Your task to perform on an android device: turn on sleep mode Image 0: 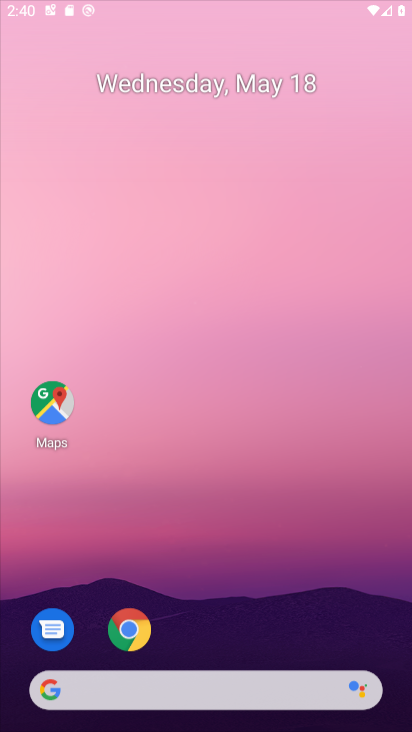
Step 0: press home button
Your task to perform on an android device: turn on sleep mode Image 1: 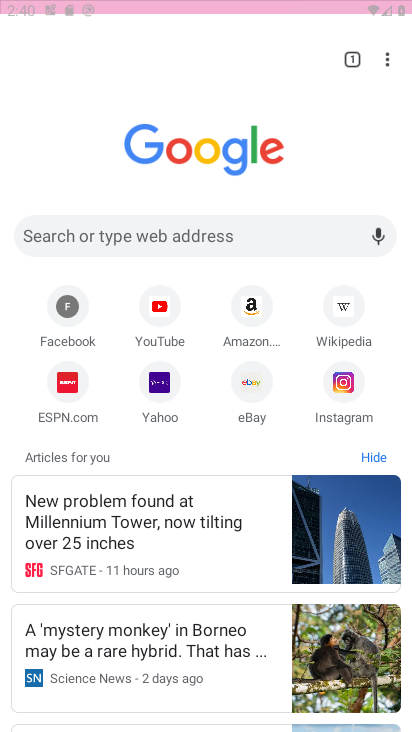
Step 1: drag from (224, 643) to (351, 62)
Your task to perform on an android device: turn on sleep mode Image 2: 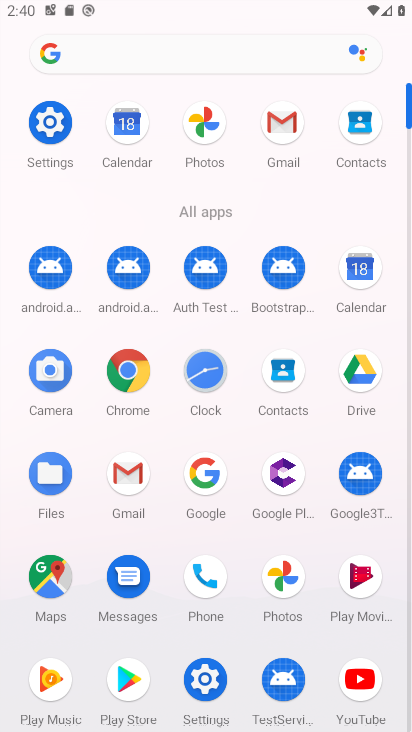
Step 2: click (49, 119)
Your task to perform on an android device: turn on sleep mode Image 3: 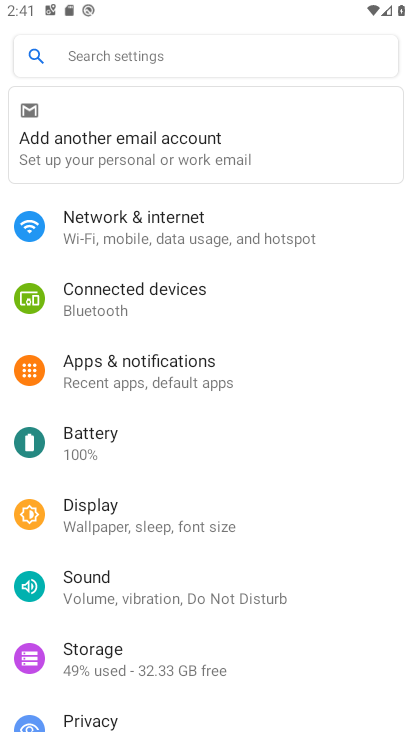
Step 3: click (148, 505)
Your task to perform on an android device: turn on sleep mode Image 4: 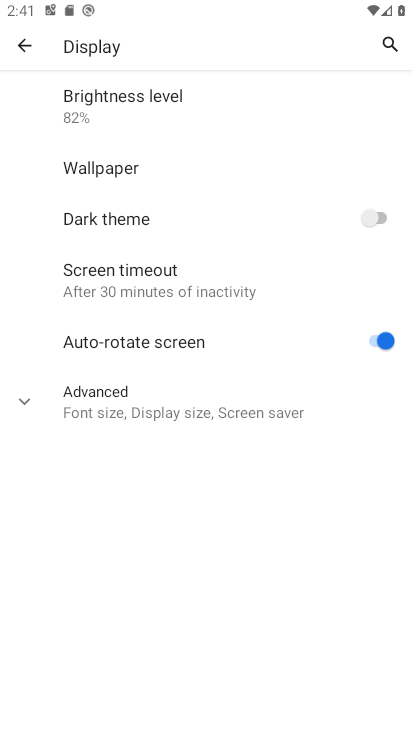
Step 4: click (41, 399)
Your task to perform on an android device: turn on sleep mode Image 5: 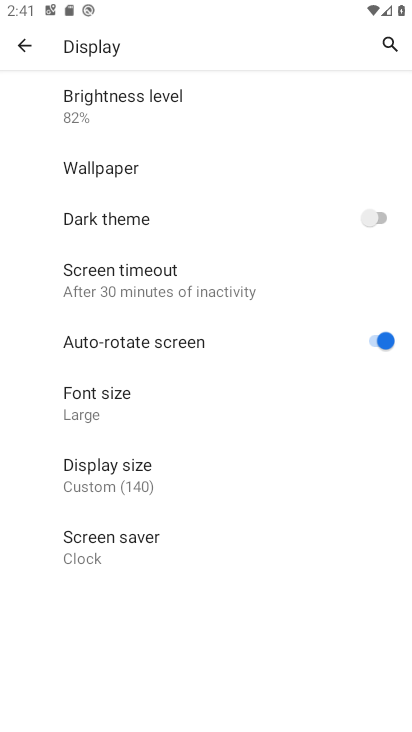
Step 5: task complete